Your task to perform on an android device: Open battery settings Image 0: 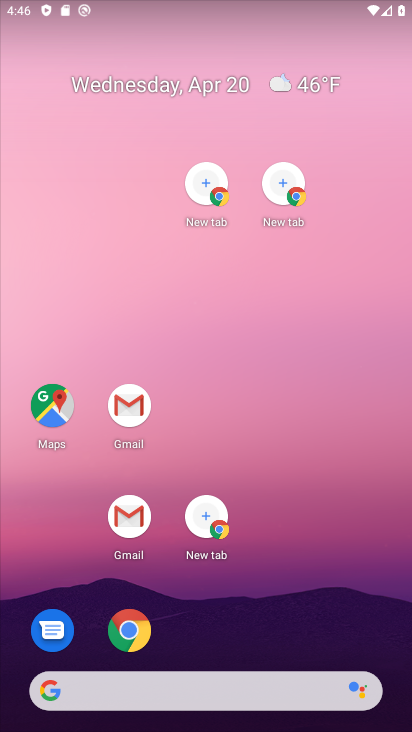
Step 0: drag from (303, 689) to (85, 0)
Your task to perform on an android device: Open battery settings Image 1: 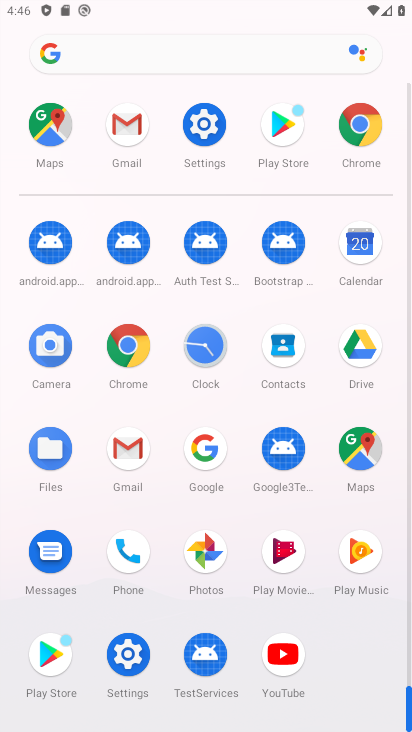
Step 1: click (92, 627)
Your task to perform on an android device: Open battery settings Image 2: 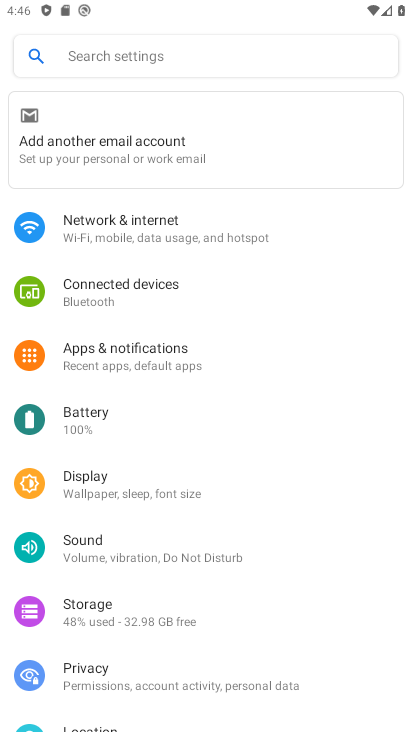
Step 2: click (65, 397)
Your task to perform on an android device: Open battery settings Image 3: 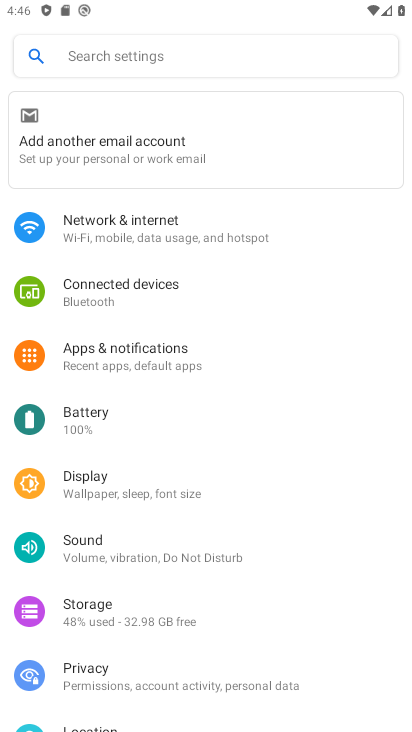
Step 3: click (76, 411)
Your task to perform on an android device: Open battery settings Image 4: 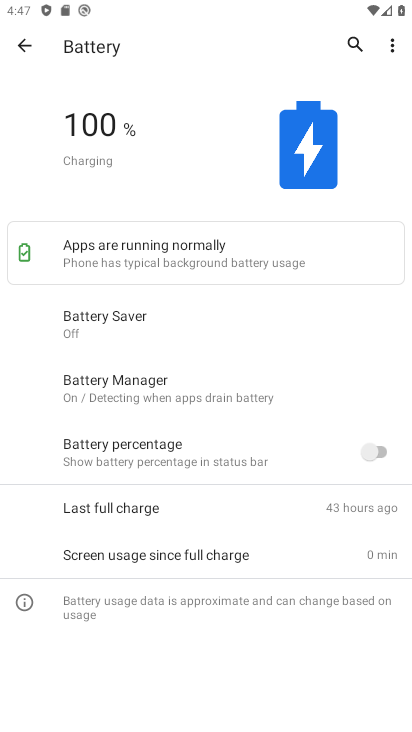
Step 4: click (21, 44)
Your task to perform on an android device: Open battery settings Image 5: 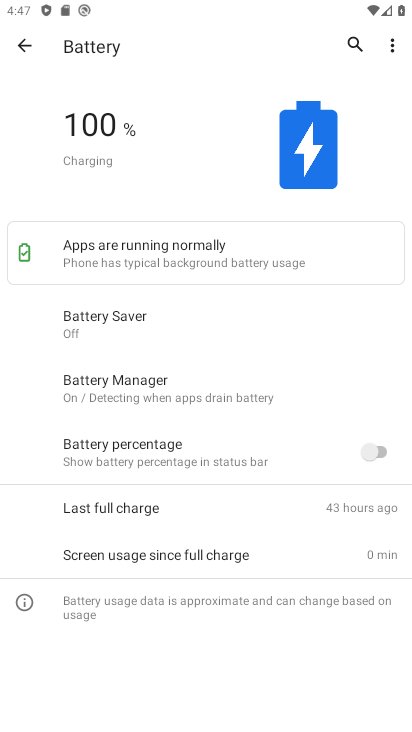
Step 5: click (21, 44)
Your task to perform on an android device: Open battery settings Image 6: 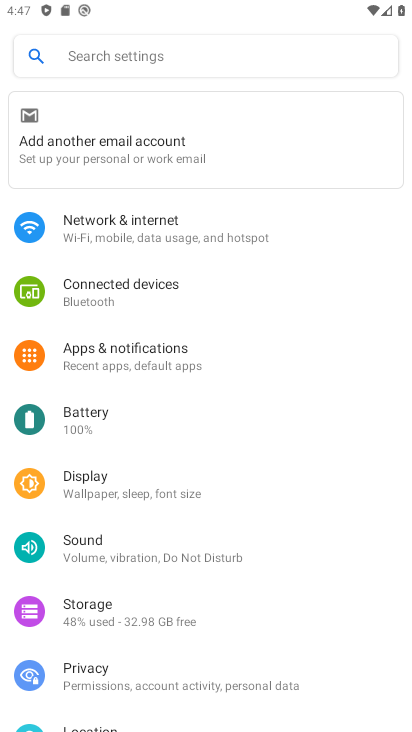
Step 6: click (78, 426)
Your task to perform on an android device: Open battery settings Image 7: 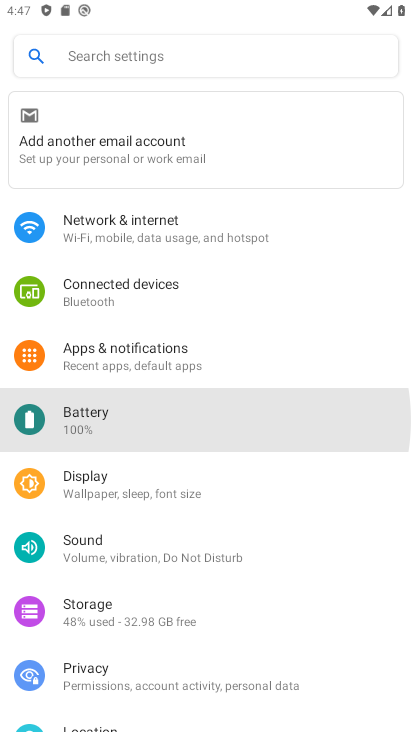
Step 7: click (78, 419)
Your task to perform on an android device: Open battery settings Image 8: 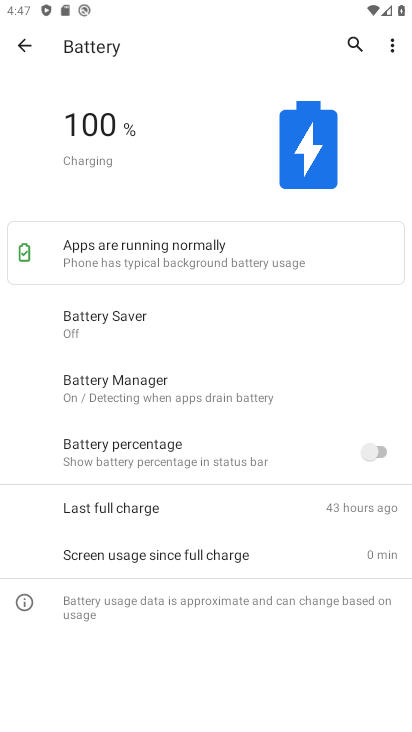
Step 8: task complete